Your task to perform on an android device: What's the weather going to be tomorrow? Image 0: 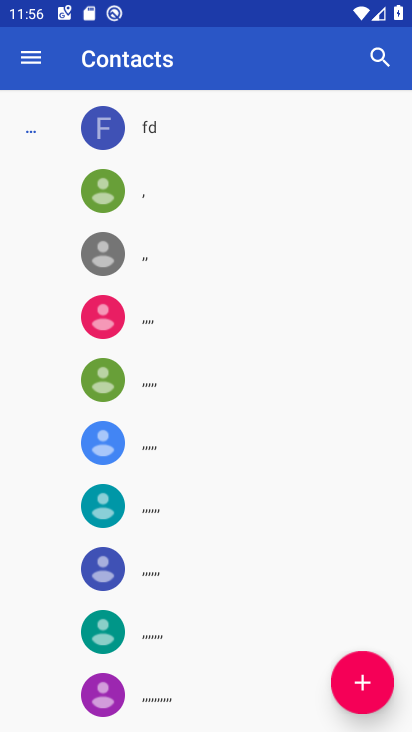
Step 0: press home button
Your task to perform on an android device: What's the weather going to be tomorrow? Image 1: 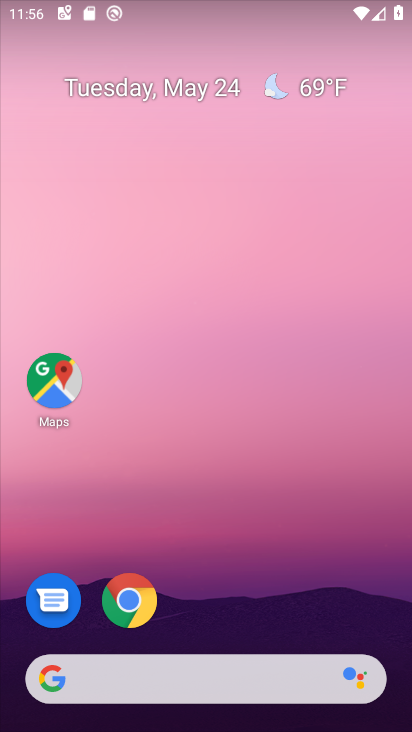
Step 1: click (282, 680)
Your task to perform on an android device: What's the weather going to be tomorrow? Image 2: 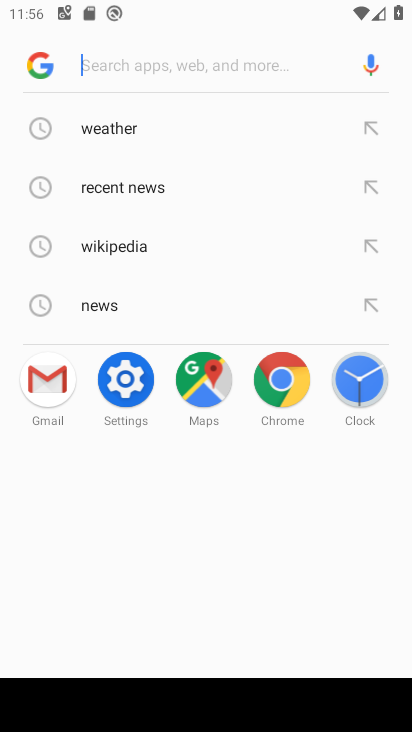
Step 2: click (156, 134)
Your task to perform on an android device: What's the weather going to be tomorrow? Image 3: 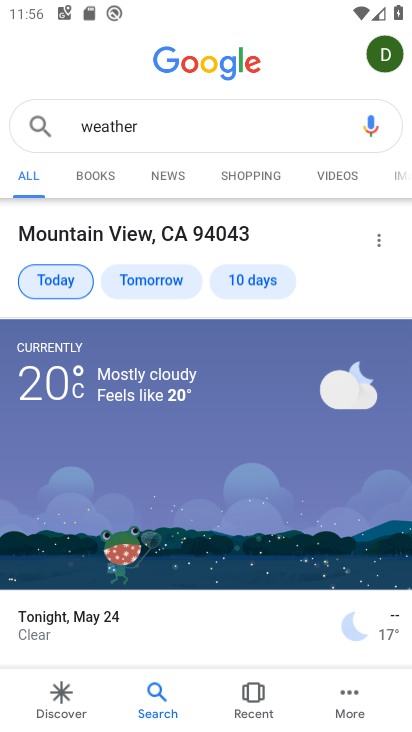
Step 3: click (158, 286)
Your task to perform on an android device: What's the weather going to be tomorrow? Image 4: 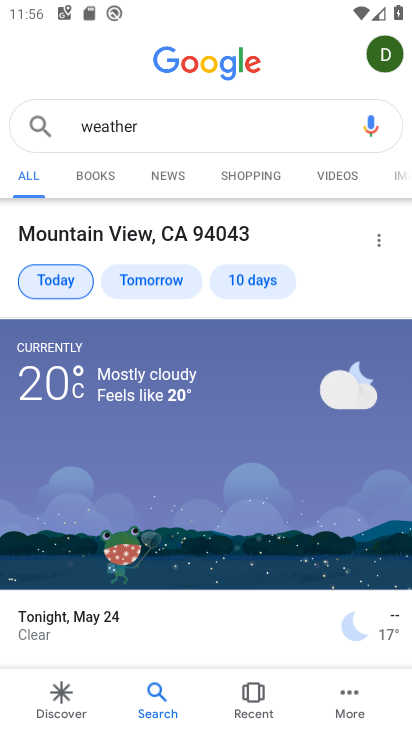
Step 4: click (158, 286)
Your task to perform on an android device: What's the weather going to be tomorrow? Image 5: 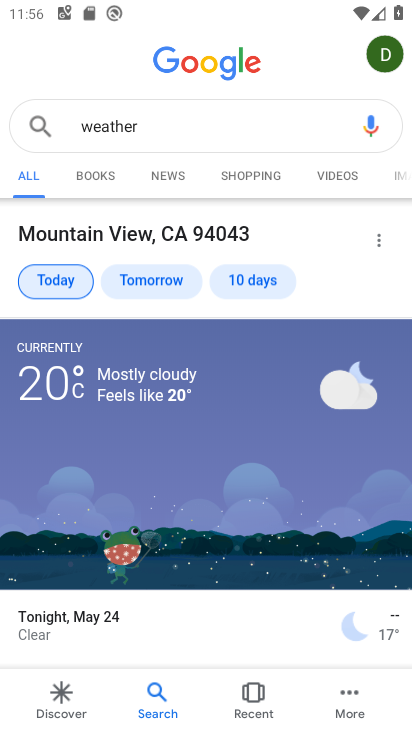
Step 5: click (158, 286)
Your task to perform on an android device: What's the weather going to be tomorrow? Image 6: 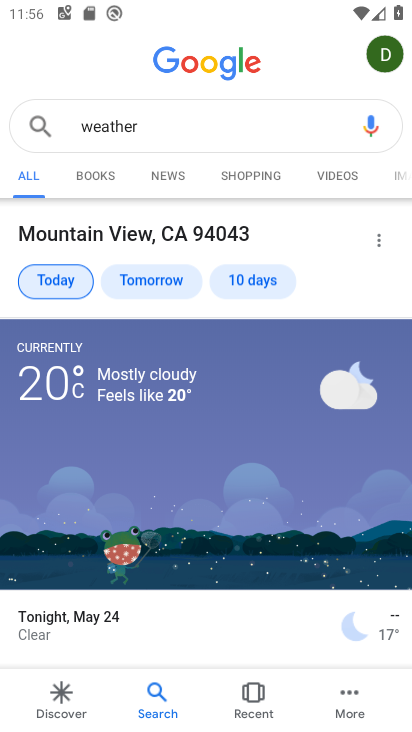
Step 6: click (158, 286)
Your task to perform on an android device: What's the weather going to be tomorrow? Image 7: 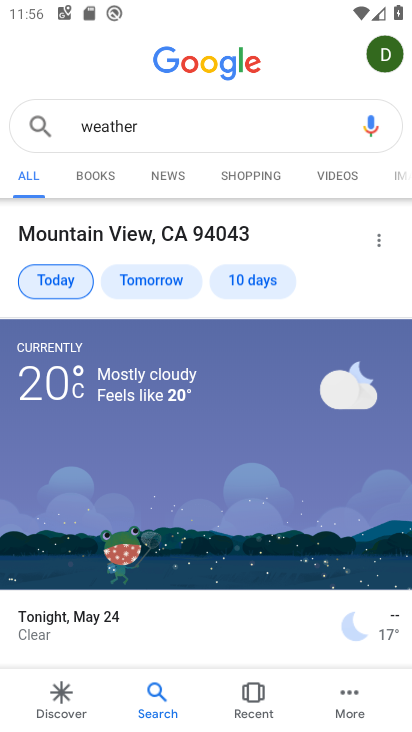
Step 7: click (158, 286)
Your task to perform on an android device: What's the weather going to be tomorrow? Image 8: 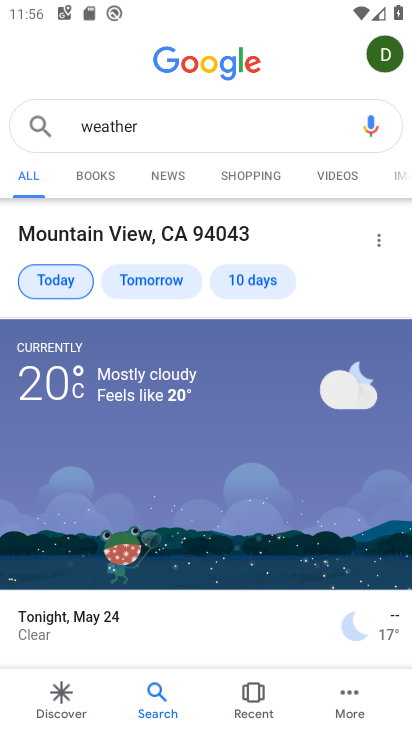
Step 8: task complete